Your task to perform on an android device: Open battery settings Image 0: 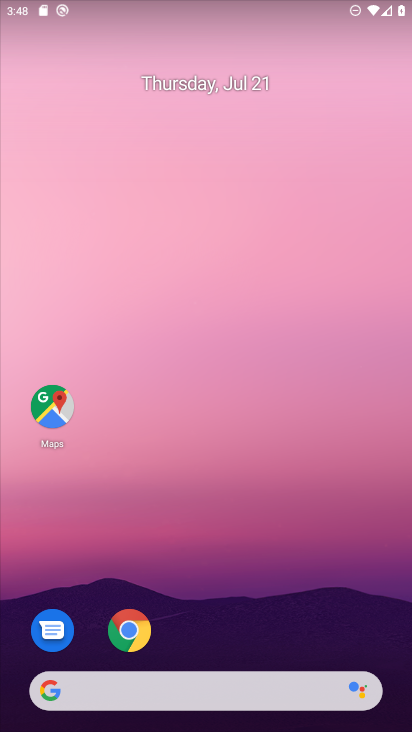
Step 0: drag from (205, 659) to (161, 48)
Your task to perform on an android device: Open battery settings Image 1: 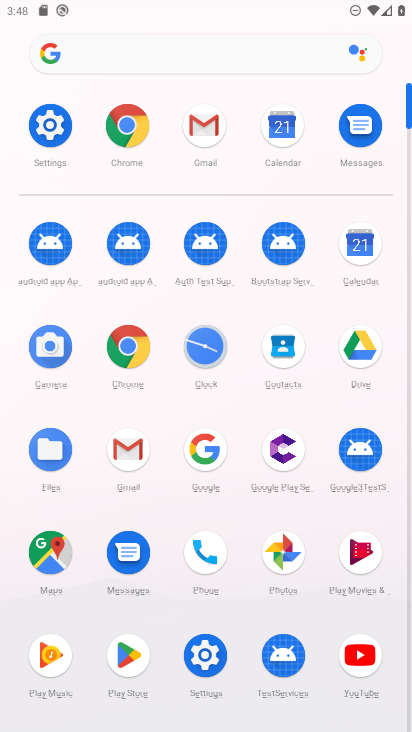
Step 1: click (45, 128)
Your task to perform on an android device: Open battery settings Image 2: 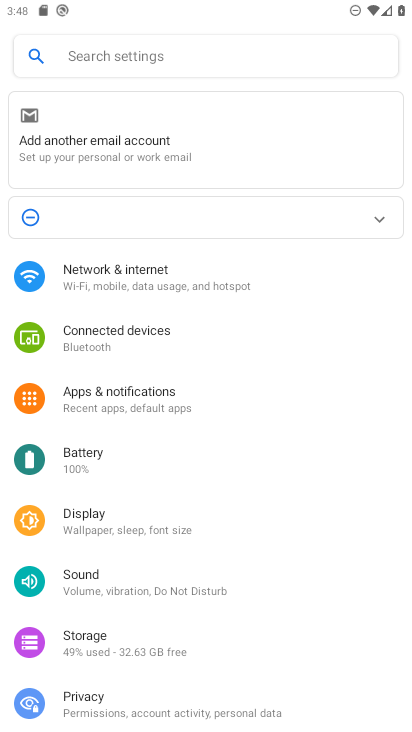
Step 2: click (78, 447)
Your task to perform on an android device: Open battery settings Image 3: 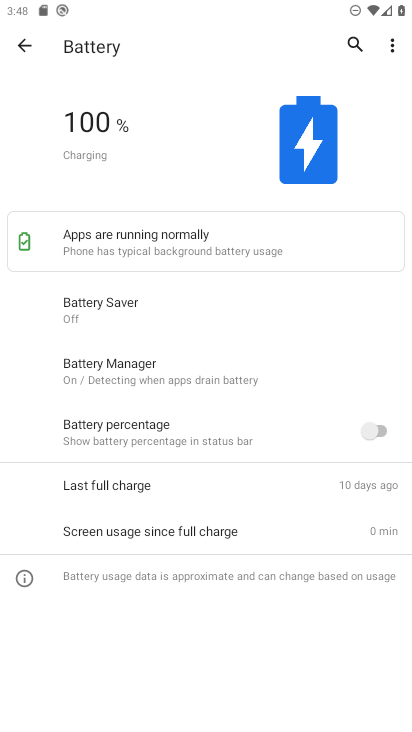
Step 3: task complete